Your task to perform on an android device: Go to display settings Image 0: 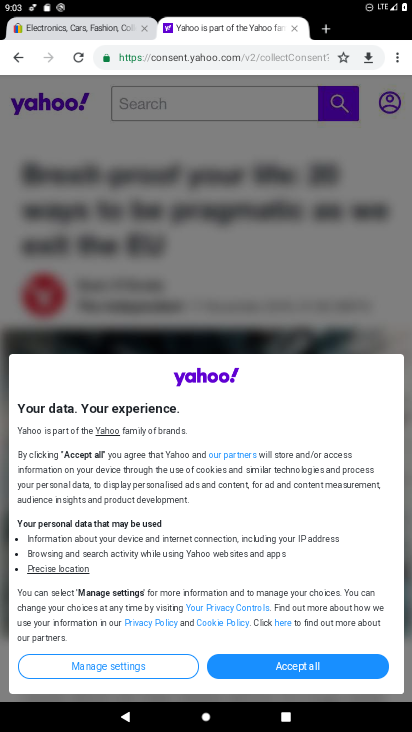
Step 0: drag from (222, 2) to (252, 441)
Your task to perform on an android device: Go to display settings Image 1: 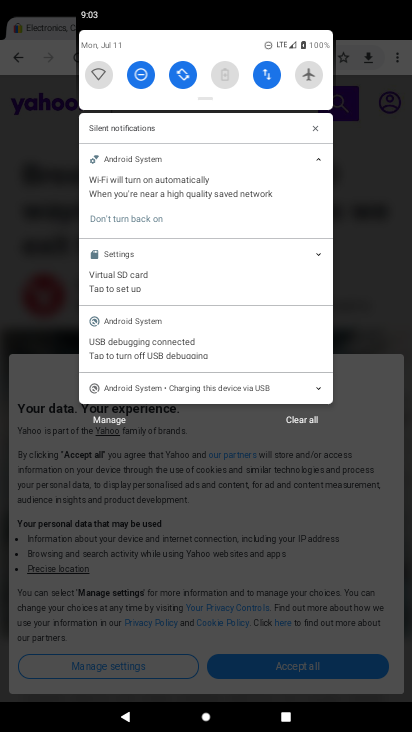
Step 1: drag from (163, 43) to (169, 524)
Your task to perform on an android device: Go to display settings Image 2: 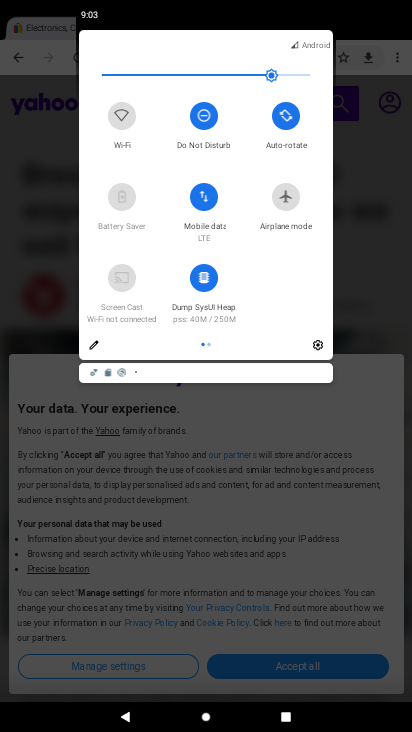
Step 2: click (315, 337)
Your task to perform on an android device: Go to display settings Image 3: 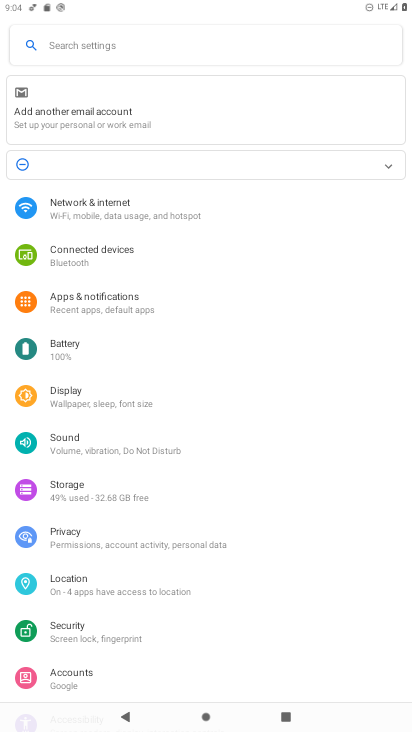
Step 3: click (81, 387)
Your task to perform on an android device: Go to display settings Image 4: 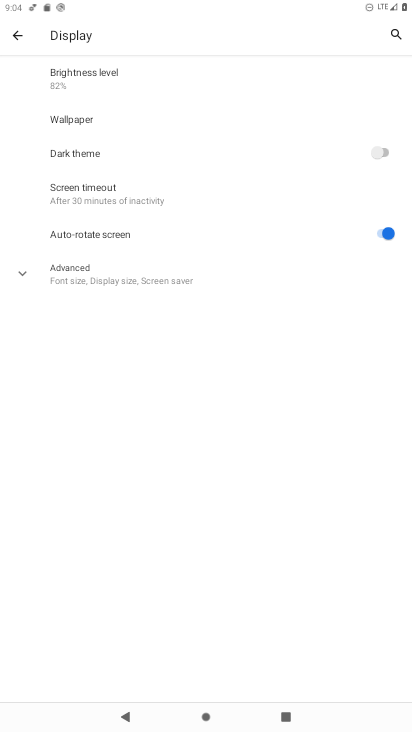
Step 4: task complete